Your task to perform on an android device: Check the weather Image 0: 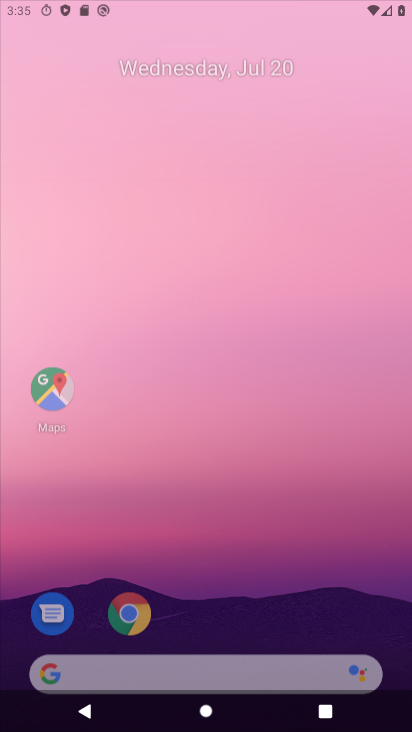
Step 0: press home button
Your task to perform on an android device: Check the weather Image 1: 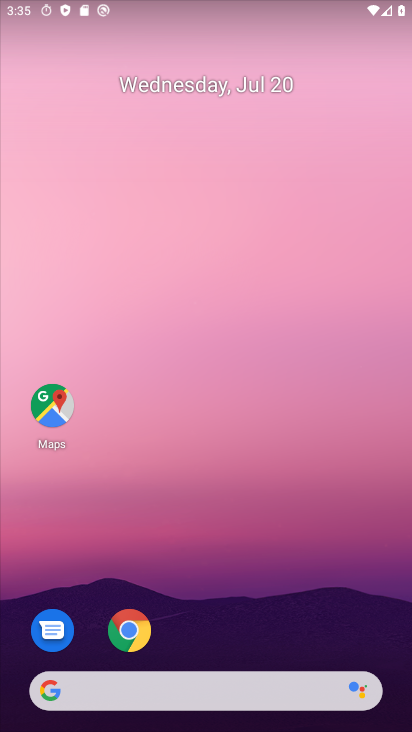
Step 1: click (339, 95)
Your task to perform on an android device: Check the weather Image 2: 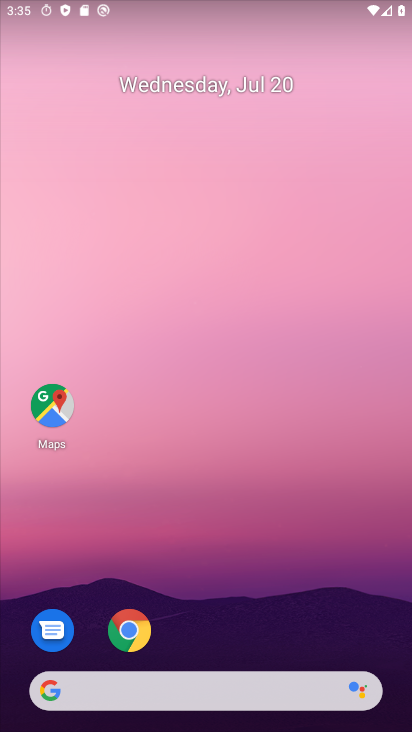
Step 2: click (42, 689)
Your task to perform on an android device: Check the weather Image 3: 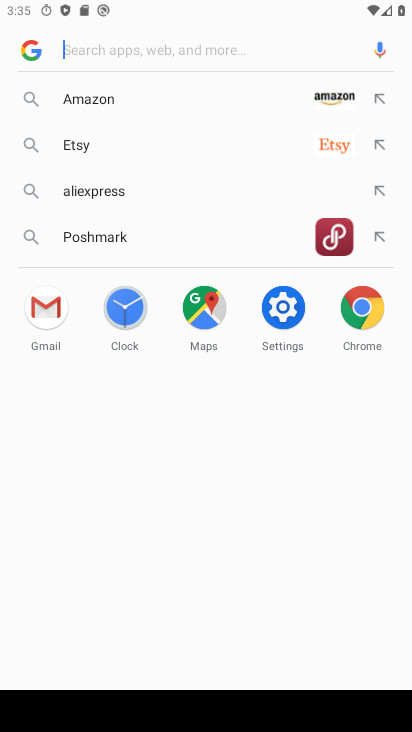
Step 3: type " weather"
Your task to perform on an android device: Check the weather Image 4: 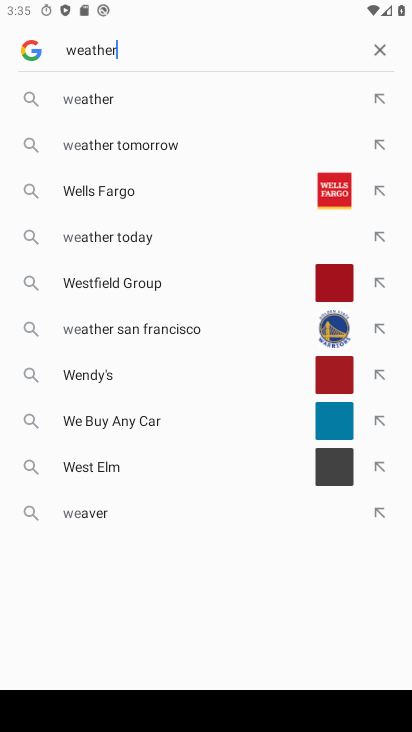
Step 4: press enter
Your task to perform on an android device: Check the weather Image 5: 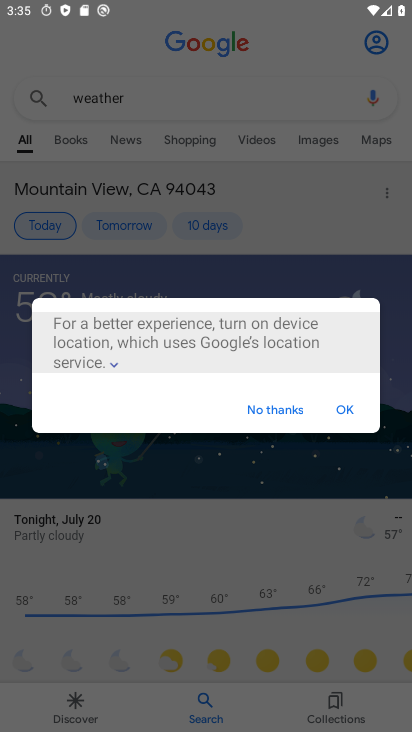
Step 5: task complete